Your task to perform on an android device: empty trash in google photos Image 0: 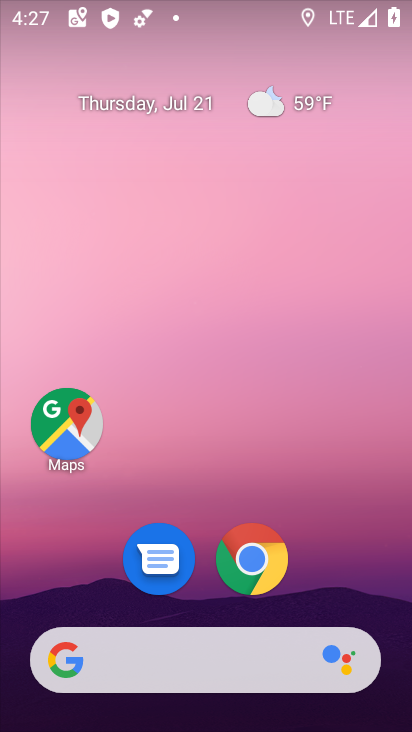
Step 0: drag from (90, 592) to (208, 2)
Your task to perform on an android device: empty trash in google photos Image 1: 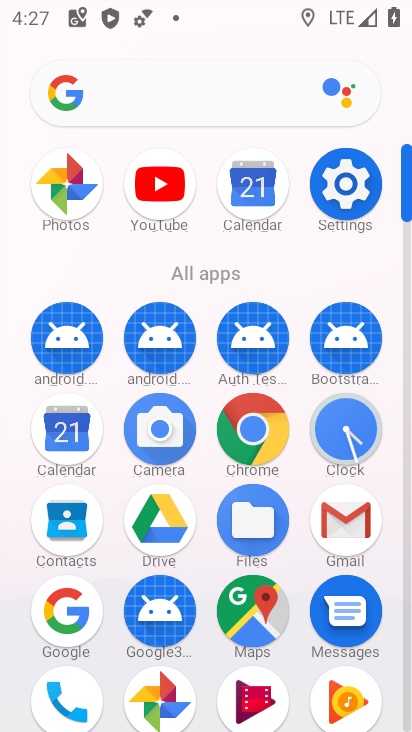
Step 1: click (172, 703)
Your task to perform on an android device: empty trash in google photos Image 2: 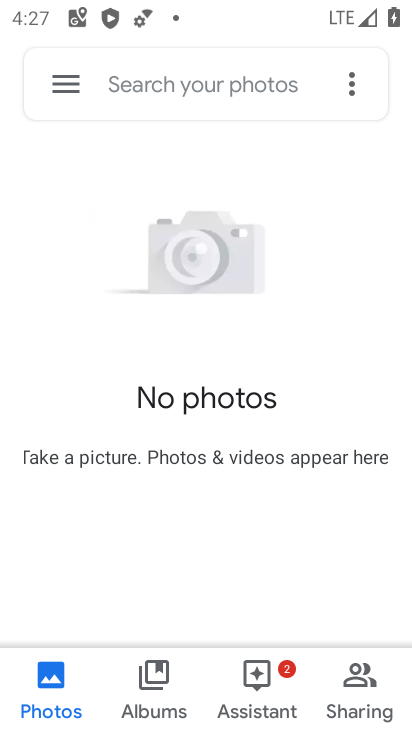
Step 2: click (62, 87)
Your task to perform on an android device: empty trash in google photos Image 3: 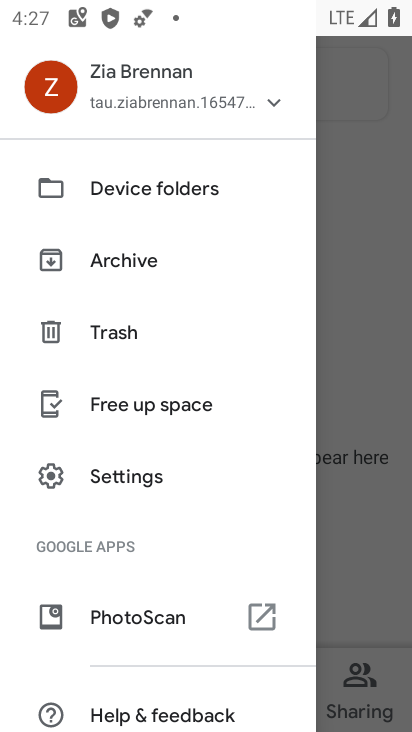
Step 3: click (123, 328)
Your task to perform on an android device: empty trash in google photos Image 4: 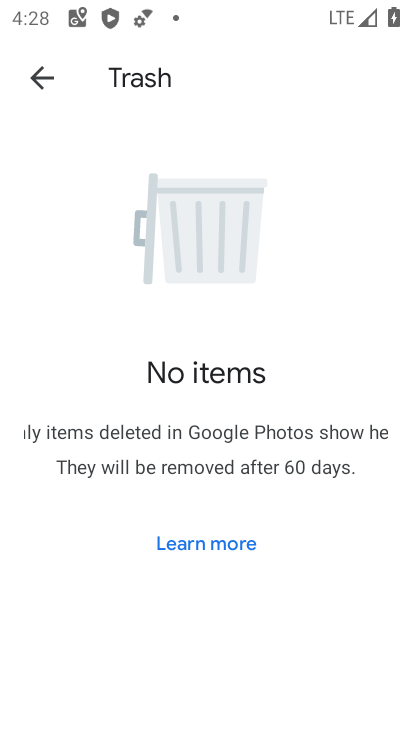
Step 4: task complete